Your task to perform on an android device: Open CNN.com Image 0: 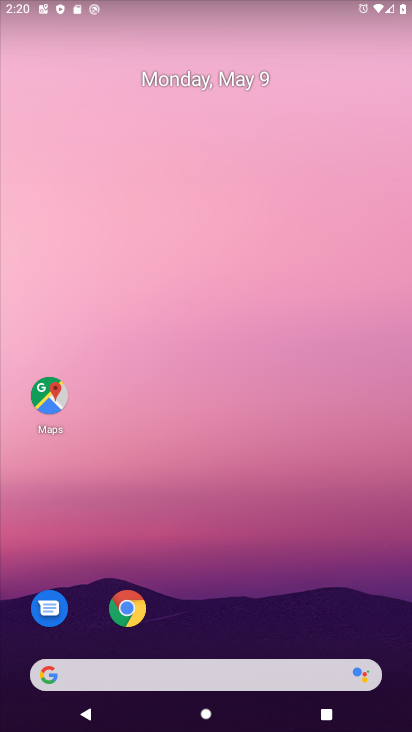
Step 0: click (123, 673)
Your task to perform on an android device: Open CNN.com Image 1: 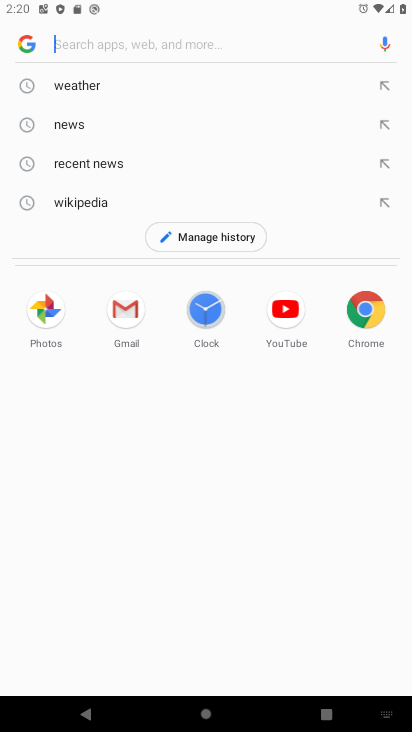
Step 1: type "cnn.com"
Your task to perform on an android device: Open CNN.com Image 2: 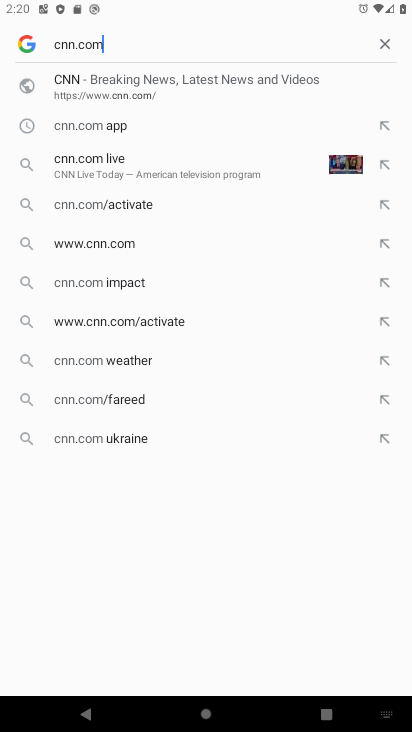
Step 2: click (152, 84)
Your task to perform on an android device: Open CNN.com Image 3: 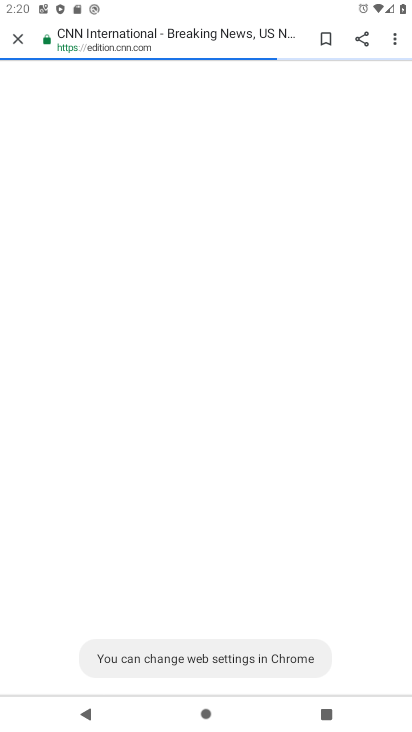
Step 3: task complete